Your task to perform on an android device: turn off improve location accuracy Image 0: 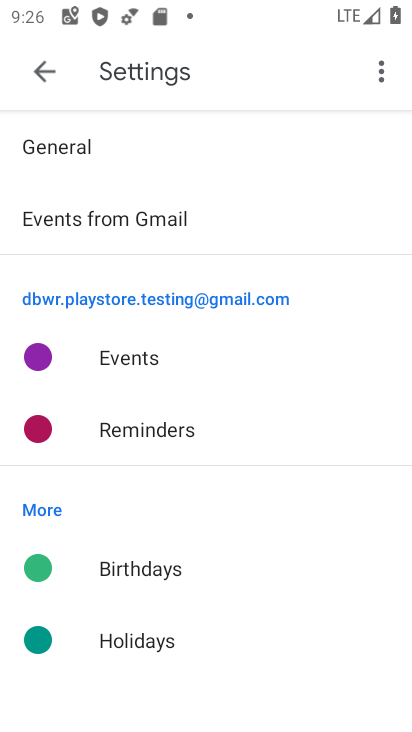
Step 0: press home button
Your task to perform on an android device: turn off improve location accuracy Image 1: 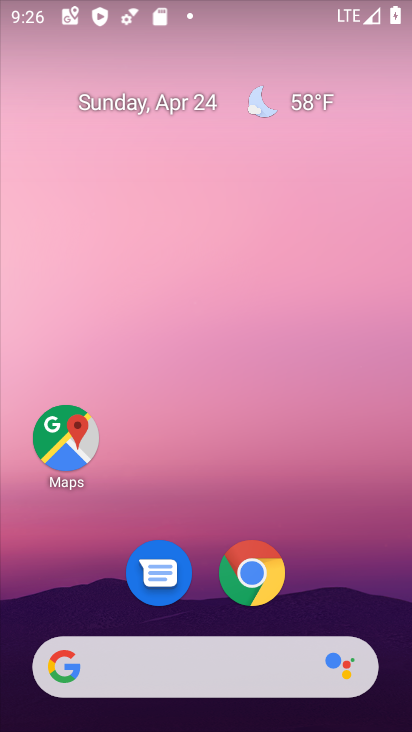
Step 1: drag from (337, 569) to (311, 101)
Your task to perform on an android device: turn off improve location accuracy Image 2: 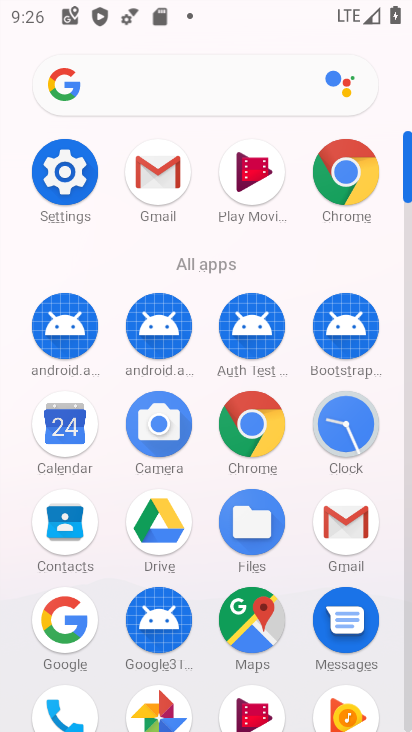
Step 2: drag from (220, 530) to (281, 146)
Your task to perform on an android device: turn off improve location accuracy Image 3: 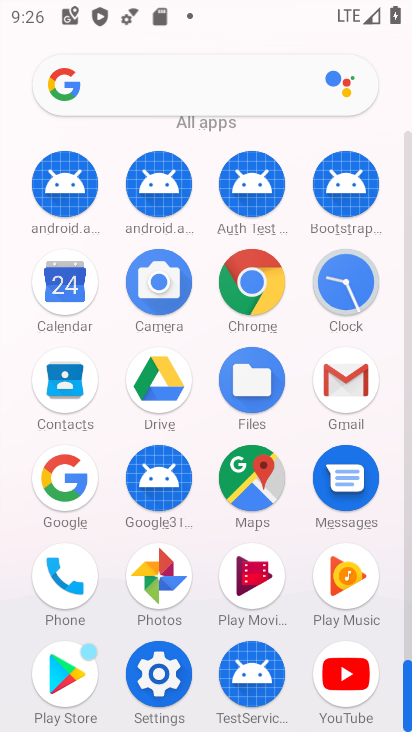
Step 3: click (164, 644)
Your task to perform on an android device: turn off improve location accuracy Image 4: 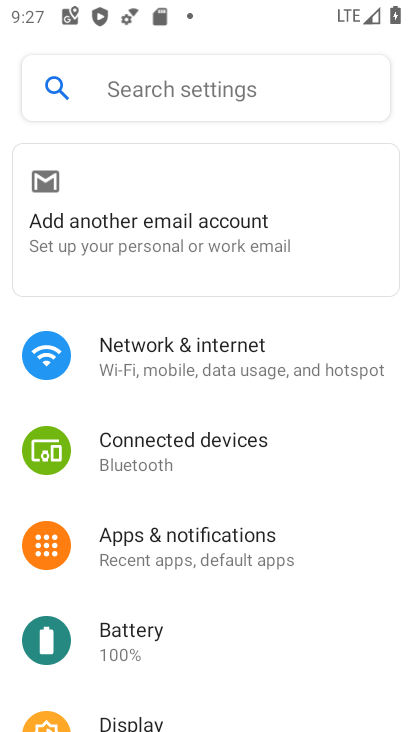
Step 4: drag from (287, 607) to (359, 328)
Your task to perform on an android device: turn off improve location accuracy Image 5: 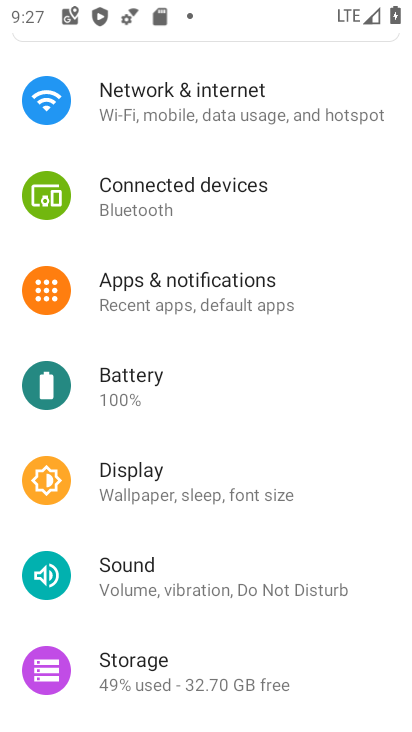
Step 5: drag from (226, 260) to (200, 575)
Your task to perform on an android device: turn off improve location accuracy Image 6: 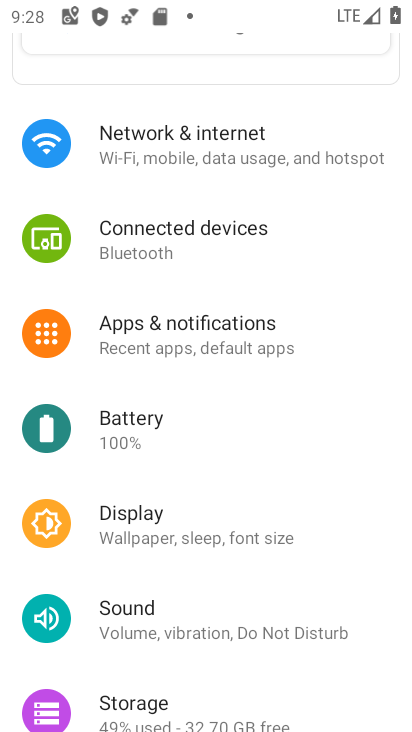
Step 6: drag from (209, 547) to (250, 232)
Your task to perform on an android device: turn off improve location accuracy Image 7: 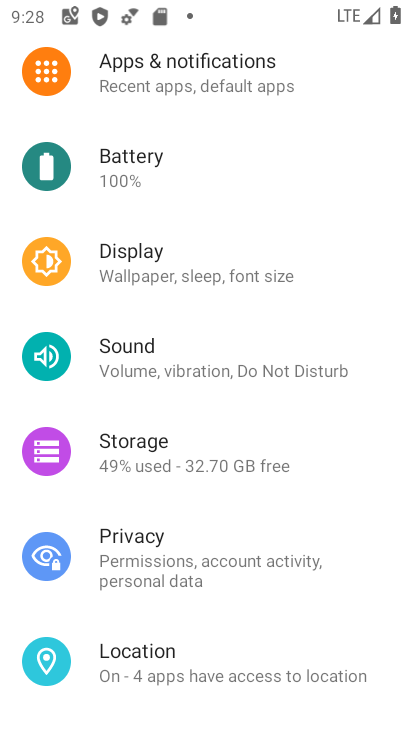
Step 7: drag from (247, 612) to (297, 195)
Your task to perform on an android device: turn off improve location accuracy Image 8: 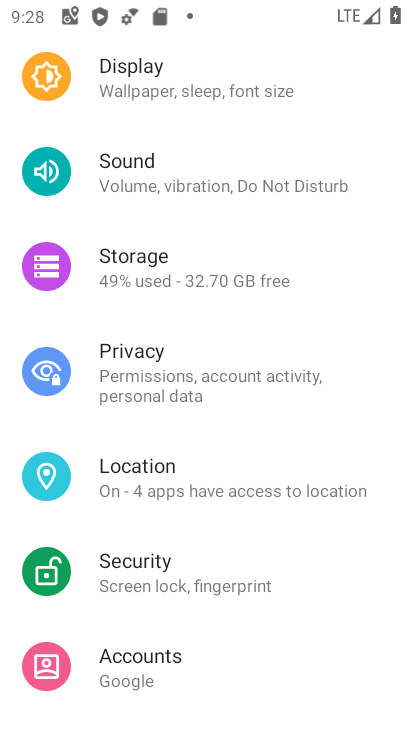
Step 8: click (147, 472)
Your task to perform on an android device: turn off improve location accuracy Image 9: 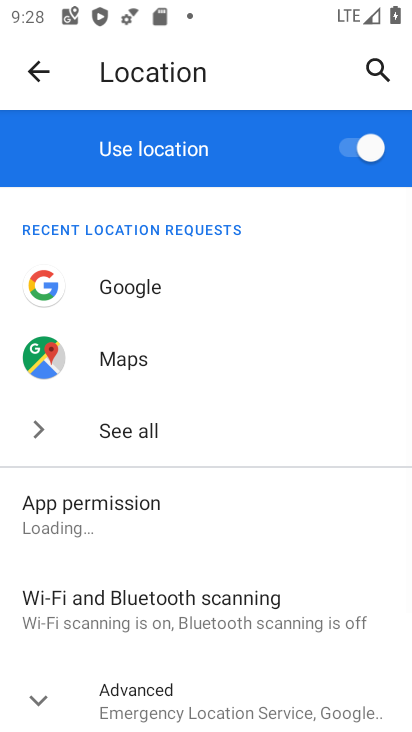
Step 9: drag from (190, 569) to (284, 227)
Your task to perform on an android device: turn off improve location accuracy Image 10: 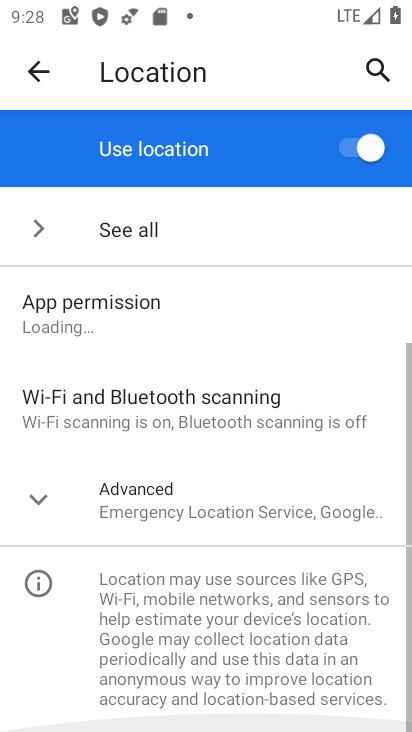
Step 10: click (199, 491)
Your task to perform on an android device: turn off improve location accuracy Image 11: 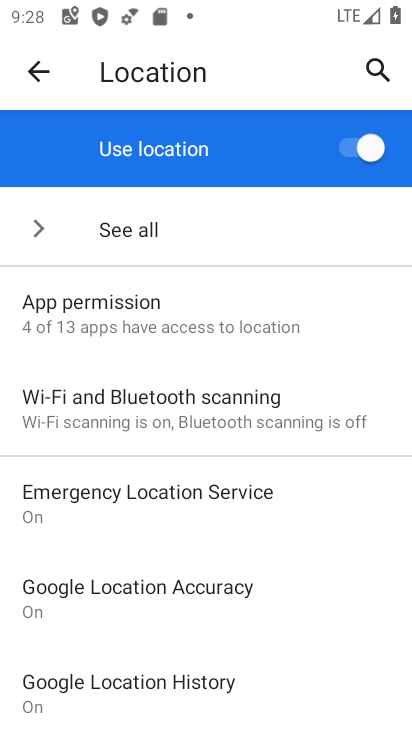
Step 11: click (191, 604)
Your task to perform on an android device: turn off improve location accuracy Image 12: 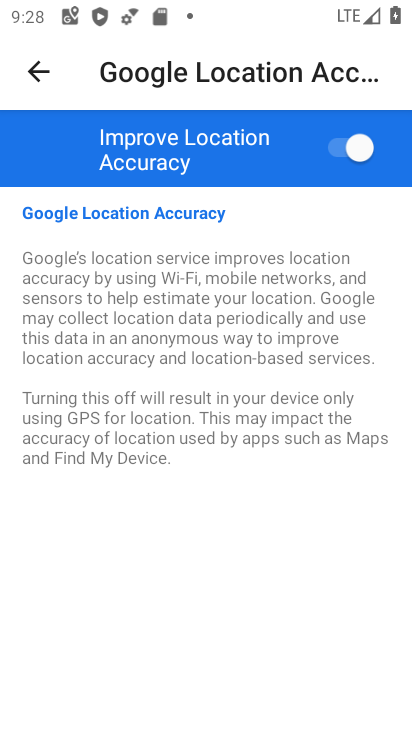
Step 12: click (341, 151)
Your task to perform on an android device: turn off improve location accuracy Image 13: 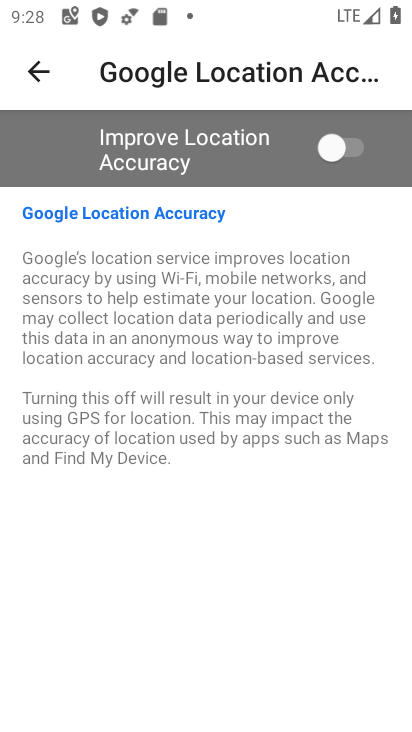
Step 13: task complete